Your task to perform on an android device: Open Youtube and go to "Your channel" Image 0: 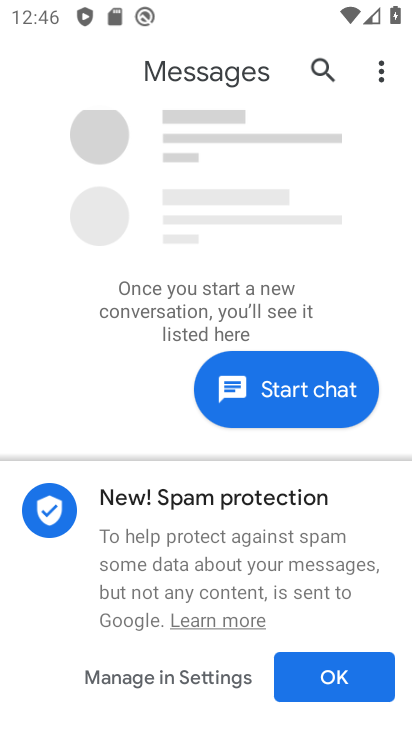
Step 0: press home button
Your task to perform on an android device: Open Youtube and go to "Your channel" Image 1: 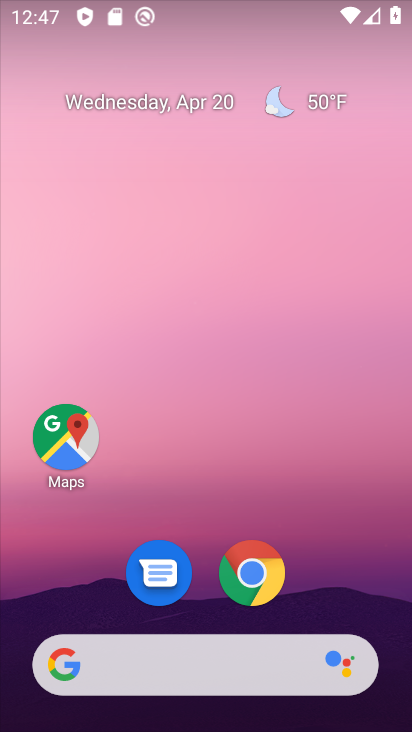
Step 1: drag from (356, 591) to (372, 19)
Your task to perform on an android device: Open Youtube and go to "Your channel" Image 2: 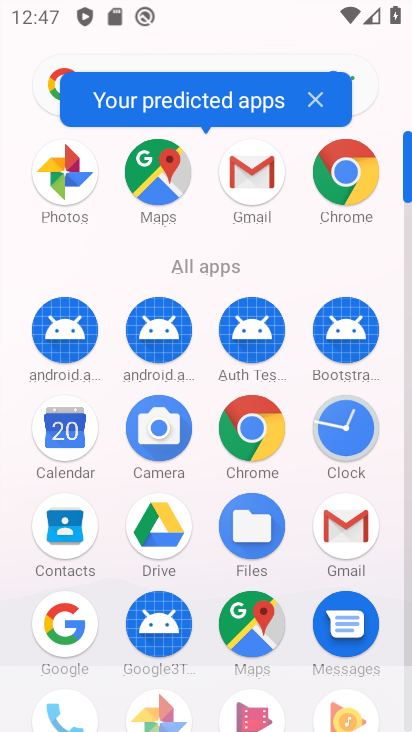
Step 2: drag from (408, 579) to (411, 505)
Your task to perform on an android device: Open Youtube and go to "Your channel" Image 3: 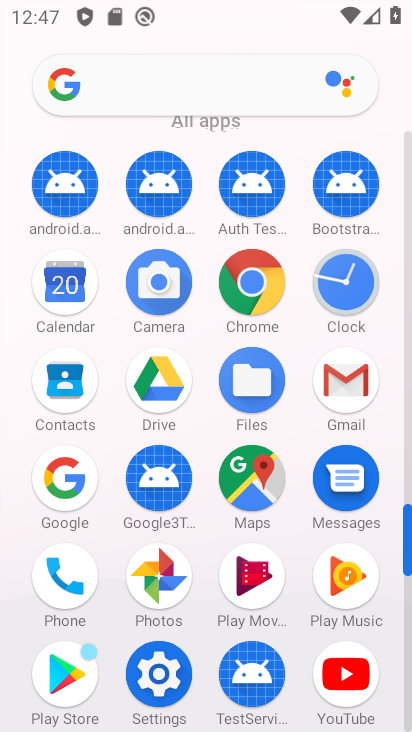
Step 3: click (343, 675)
Your task to perform on an android device: Open Youtube and go to "Your channel" Image 4: 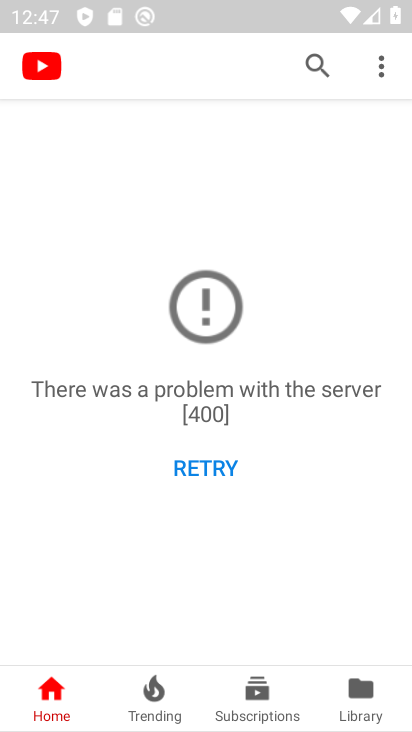
Step 4: click (381, 63)
Your task to perform on an android device: Open Youtube and go to "Your channel" Image 5: 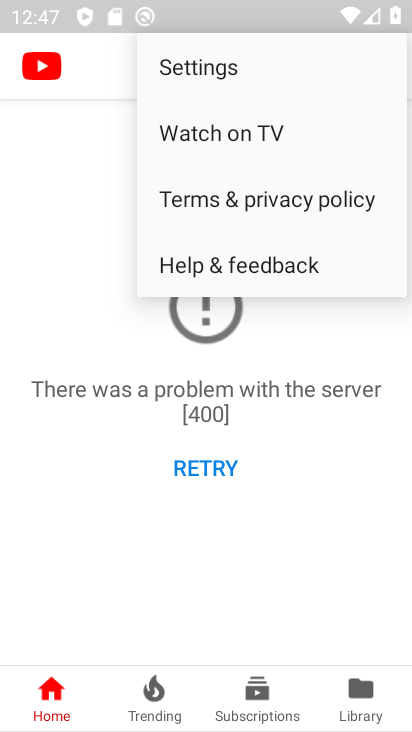
Step 5: click (356, 708)
Your task to perform on an android device: Open Youtube and go to "Your channel" Image 6: 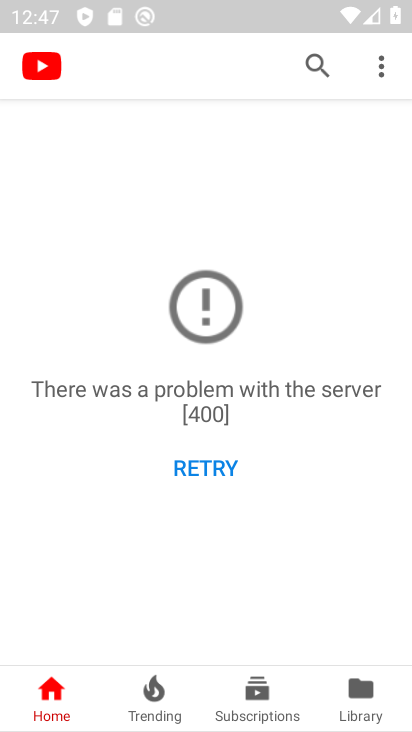
Step 6: click (356, 708)
Your task to perform on an android device: Open Youtube and go to "Your channel" Image 7: 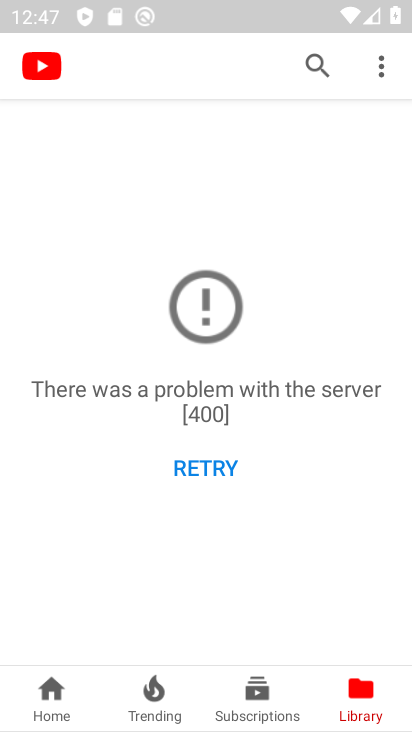
Step 7: task complete